Your task to perform on an android device: Go to Yahoo.com Image 0: 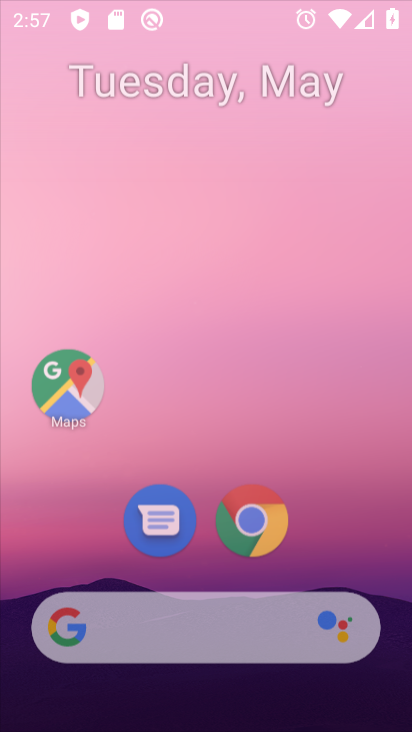
Step 0: click (302, 97)
Your task to perform on an android device: Go to Yahoo.com Image 1: 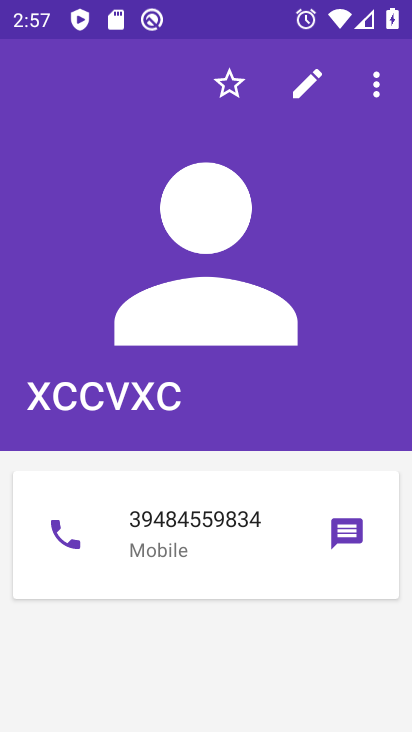
Step 1: press home button
Your task to perform on an android device: Go to Yahoo.com Image 2: 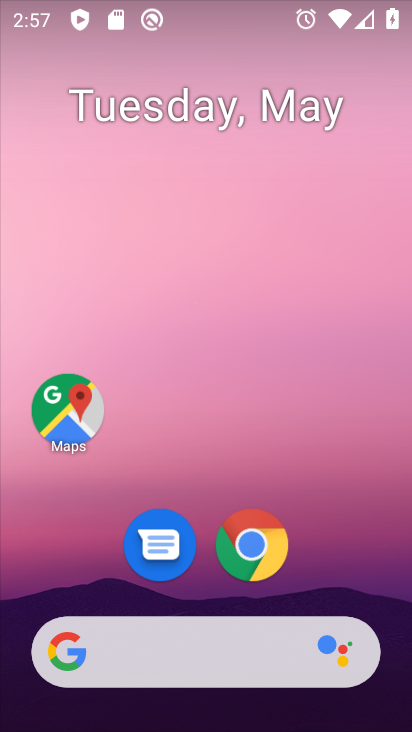
Step 2: click (259, 559)
Your task to perform on an android device: Go to Yahoo.com Image 3: 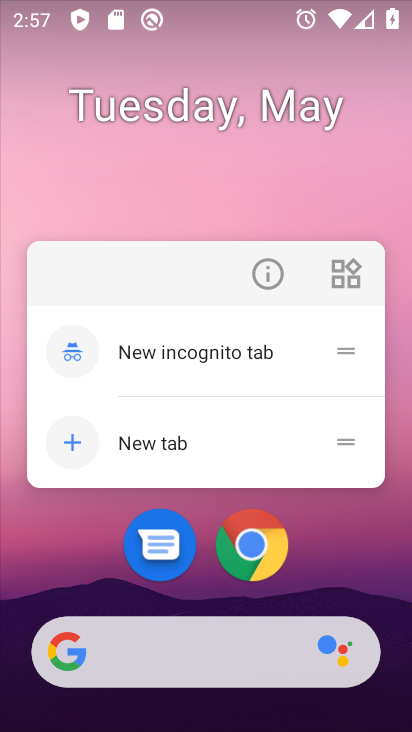
Step 3: click (259, 559)
Your task to perform on an android device: Go to Yahoo.com Image 4: 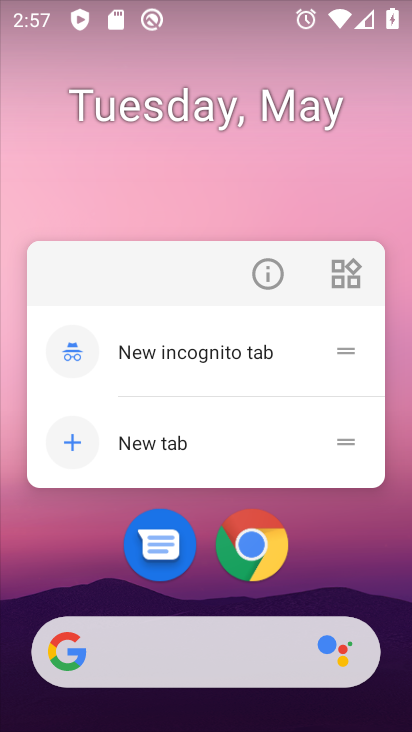
Step 4: click (259, 559)
Your task to perform on an android device: Go to Yahoo.com Image 5: 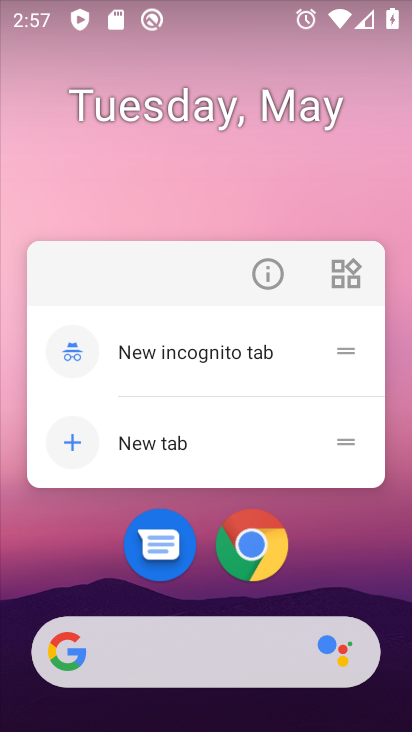
Step 5: click (268, 552)
Your task to perform on an android device: Go to Yahoo.com Image 6: 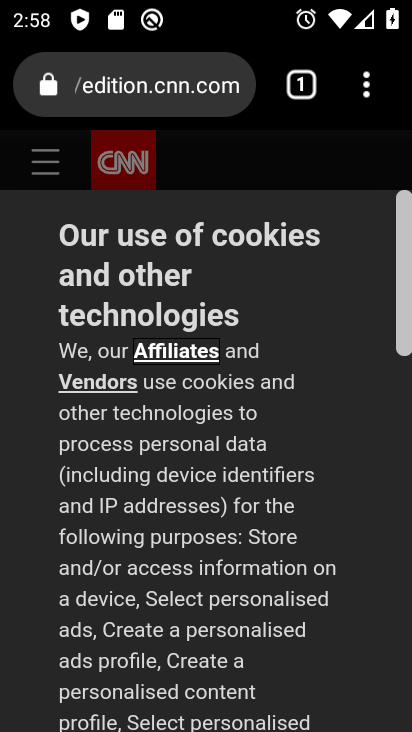
Step 6: click (177, 115)
Your task to perform on an android device: Go to Yahoo.com Image 7: 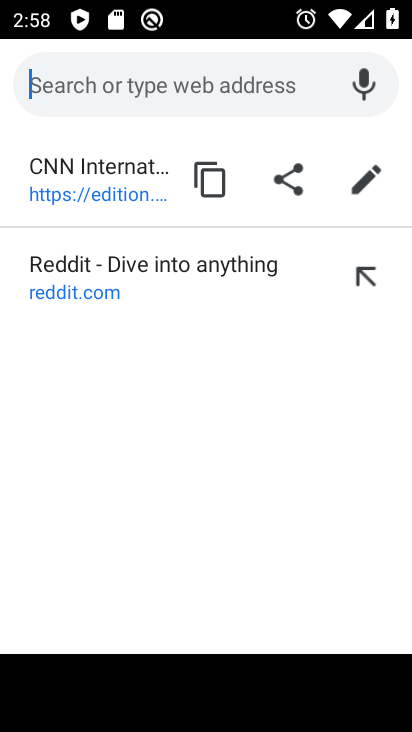
Step 7: type "yahoo.com"
Your task to perform on an android device: Go to Yahoo.com Image 8: 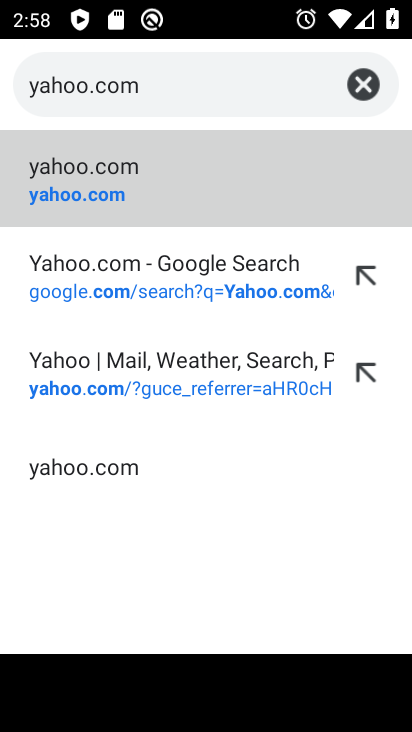
Step 8: click (186, 201)
Your task to perform on an android device: Go to Yahoo.com Image 9: 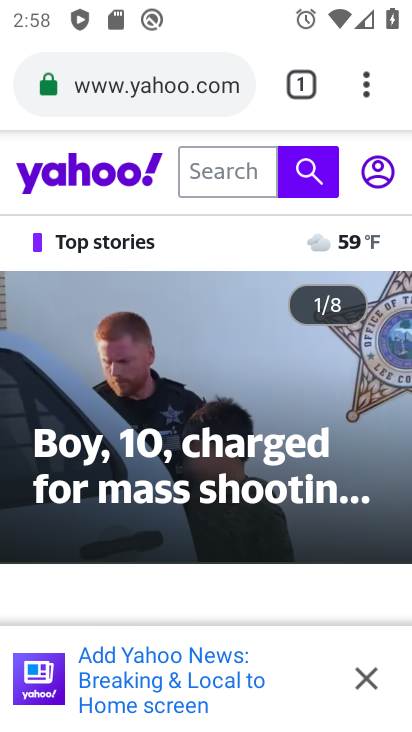
Step 9: task complete